Your task to perform on an android device: Is it going to rain today? Image 0: 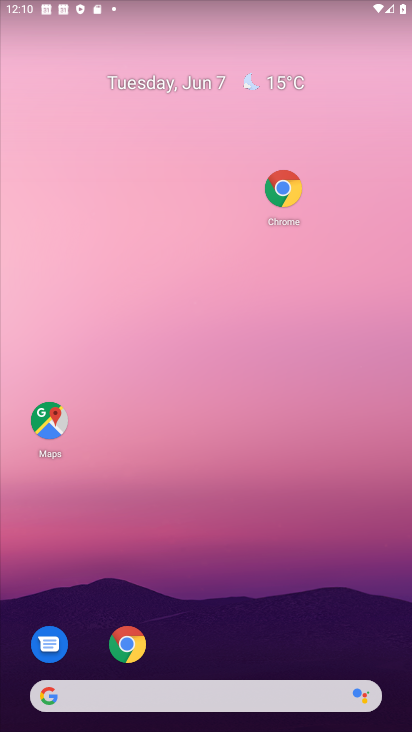
Step 0: click (286, 87)
Your task to perform on an android device: Is it going to rain today? Image 1: 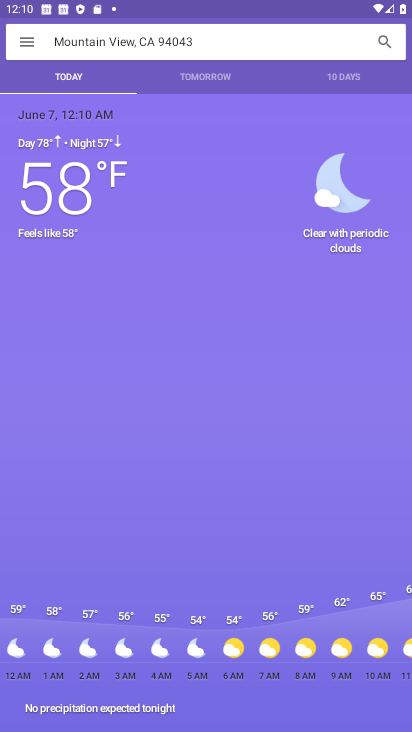
Step 1: task complete